Your task to perform on an android device: set default search engine in the chrome app Image 0: 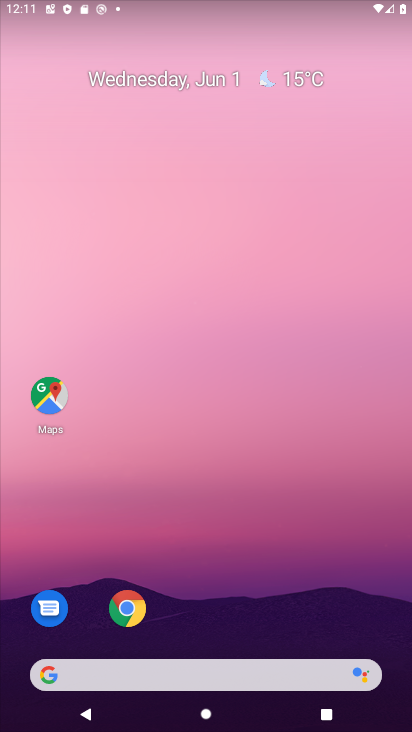
Step 0: click (118, 607)
Your task to perform on an android device: set default search engine in the chrome app Image 1: 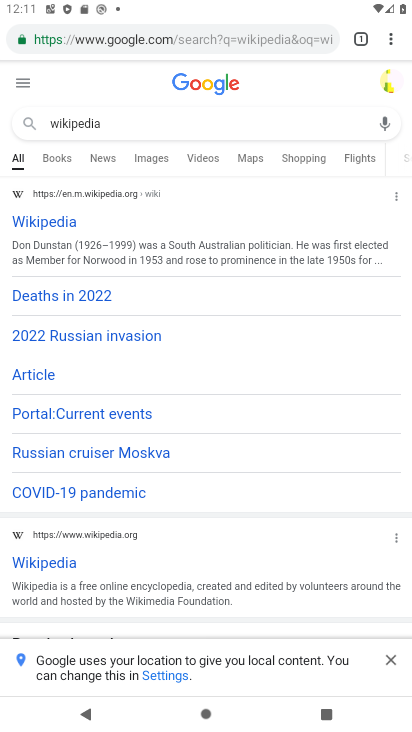
Step 1: click (383, 45)
Your task to perform on an android device: set default search engine in the chrome app Image 2: 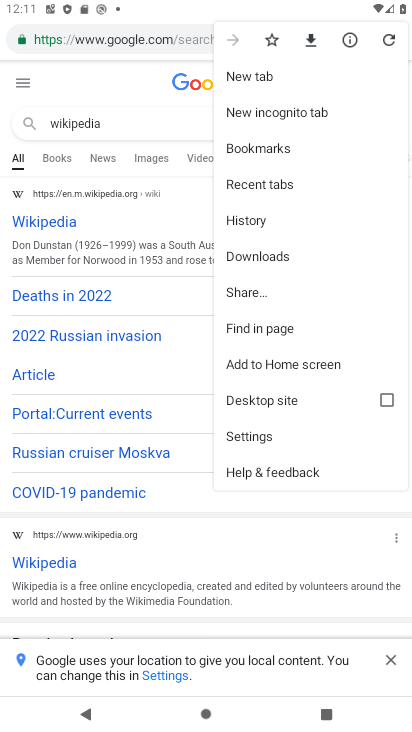
Step 2: click (248, 432)
Your task to perform on an android device: set default search engine in the chrome app Image 3: 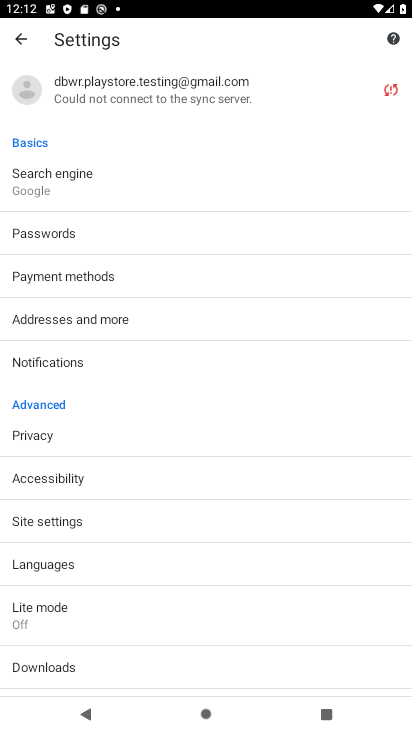
Step 3: click (78, 172)
Your task to perform on an android device: set default search engine in the chrome app Image 4: 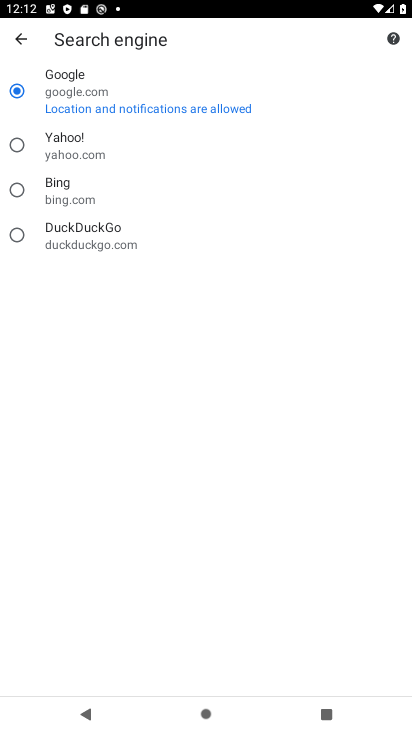
Step 4: click (79, 117)
Your task to perform on an android device: set default search engine in the chrome app Image 5: 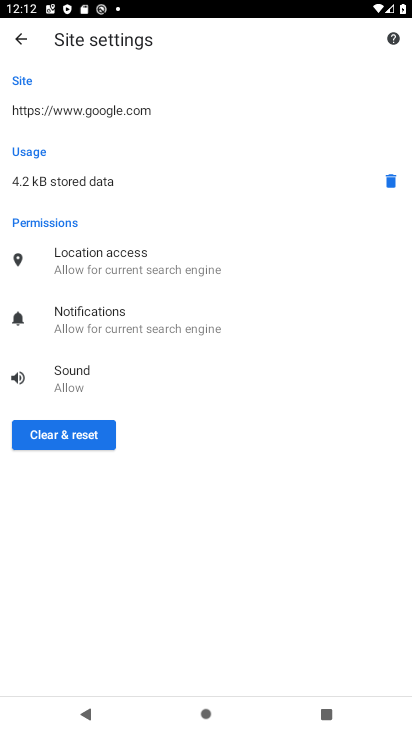
Step 5: click (75, 435)
Your task to perform on an android device: set default search engine in the chrome app Image 6: 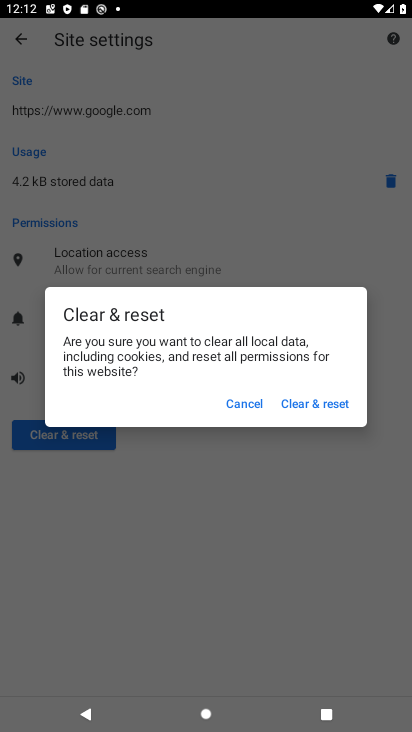
Step 6: click (306, 399)
Your task to perform on an android device: set default search engine in the chrome app Image 7: 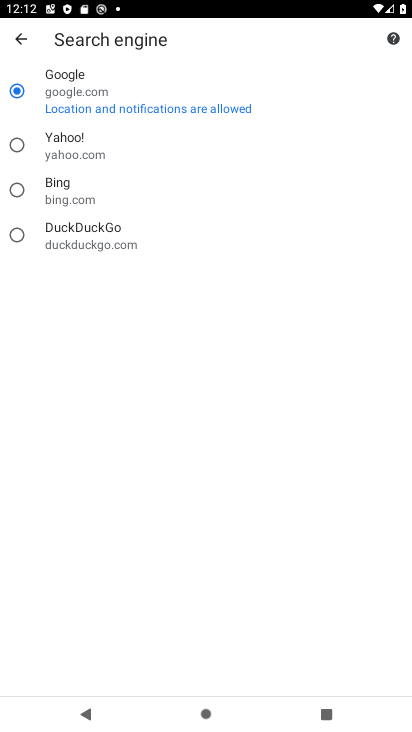
Step 7: task complete